Your task to perform on an android device: change the clock style Image 0: 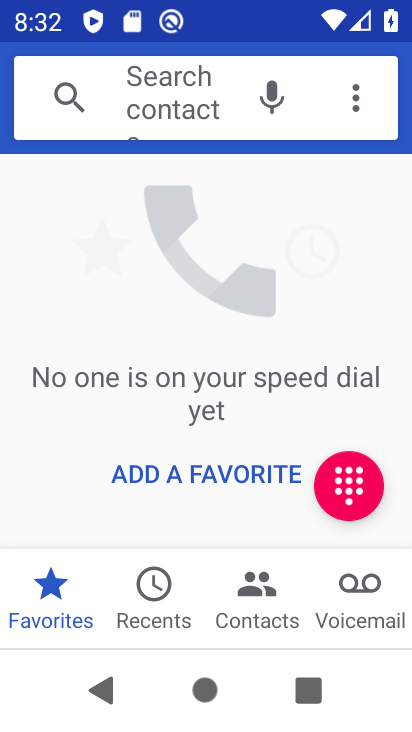
Step 0: press home button
Your task to perform on an android device: change the clock style Image 1: 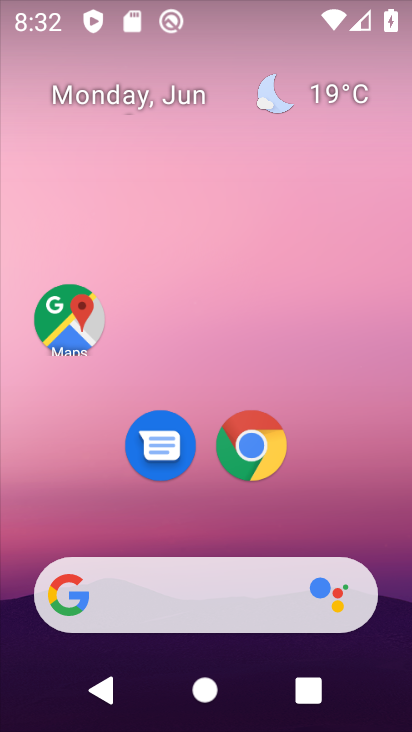
Step 1: drag from (159, 559) to (265, 70)
Your task to perform on an android device: change the clock style Image 2: 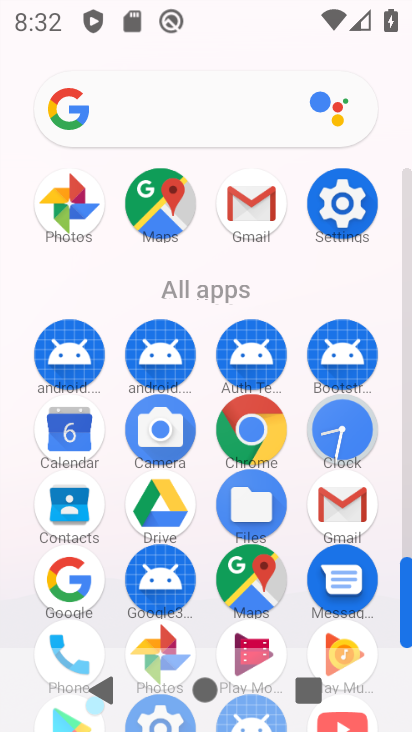
Step 2: click (356, 438)
Your task to perform on an android device: change the clock style Image 3: 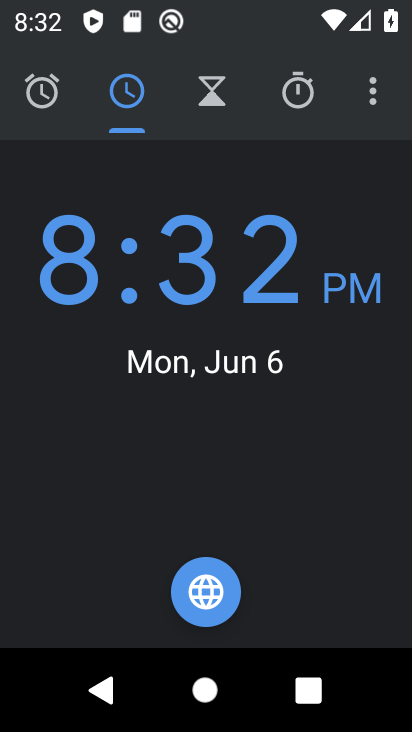
Step 3: click (382, 104)
Your task to perform on an android device: change the clock style Image 4: 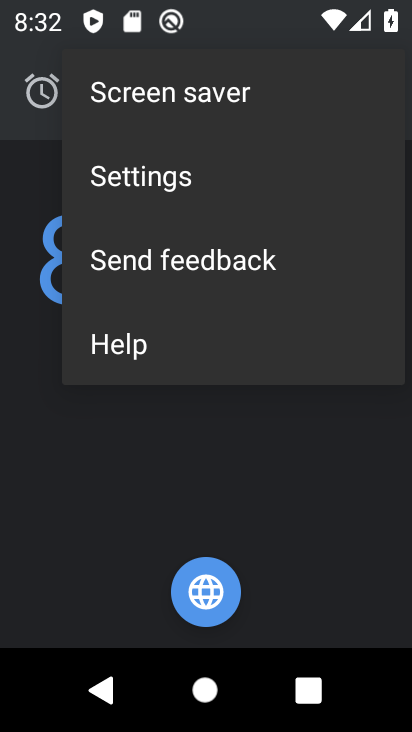
Step 4: click (286, 180)
Your task to perform on an android device: change the clock style Image 5: 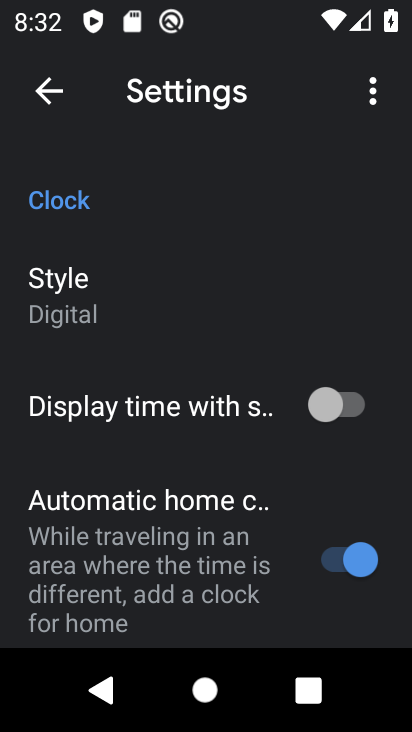
Step 5: click (196, 308)
Your task to perform on an android device: change the clock style Image 6: 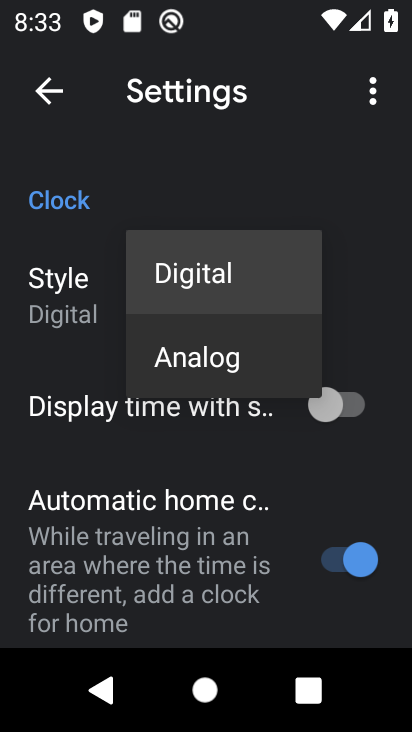
Step 6: click (219, 364)
Your task to perform on an android device: change the clock style Image 7: 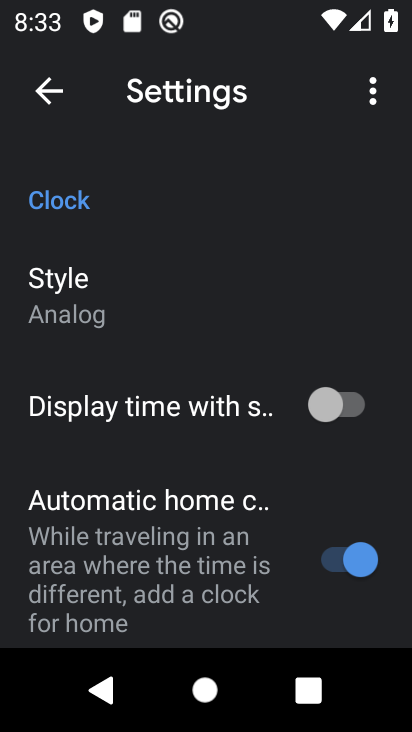
Step 7: task complete